Your task to perform on an android device: turn off sleep mode Image 0: 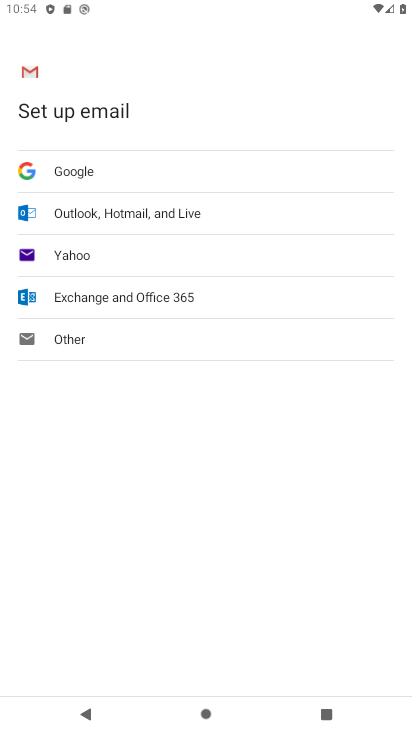
Step 0: press back button
Your task to perform on an android device: turn off sleep mode Image 1: 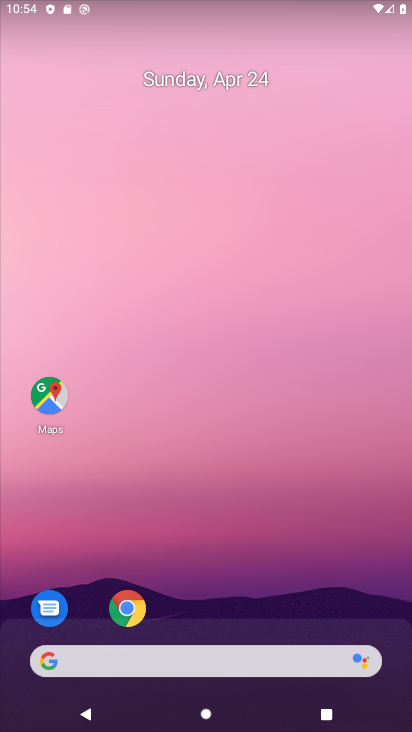
Step 1: drag from (246, 453) to (259, 84)
Your task to perform on an android device: turn off sleep mode Image 2: 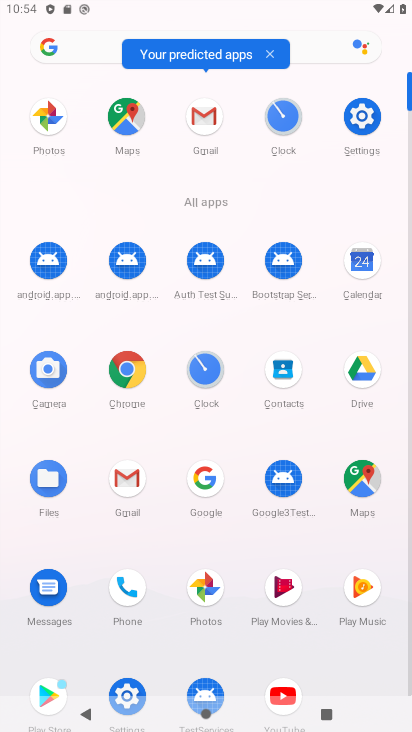
Step 2: click (362, 115)
Your task to perform on an android device: turn off sleep mode Image 3: 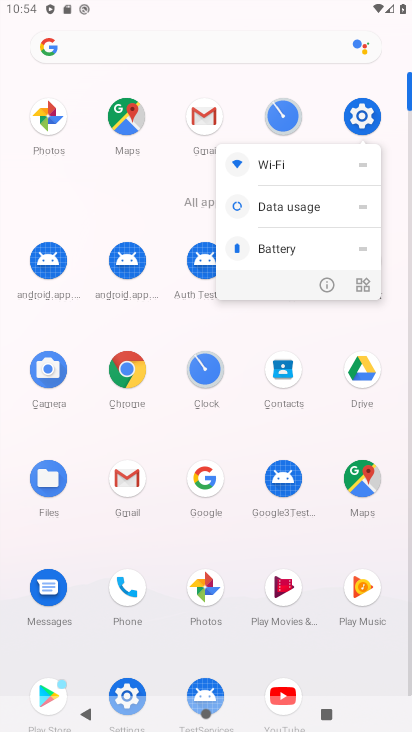
Step 3: click (366, 117)
Your task to perform on an android device: turn off sleep mode Image 4: 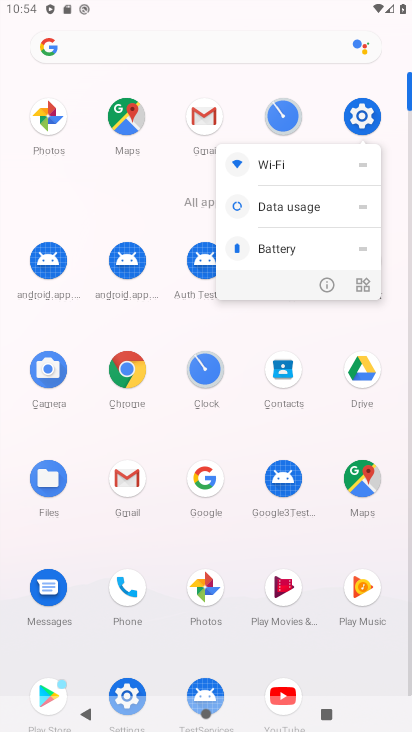
Step 4: click (365, 117)
Your task to perform on an android device: turn off sleep mode Image 5: 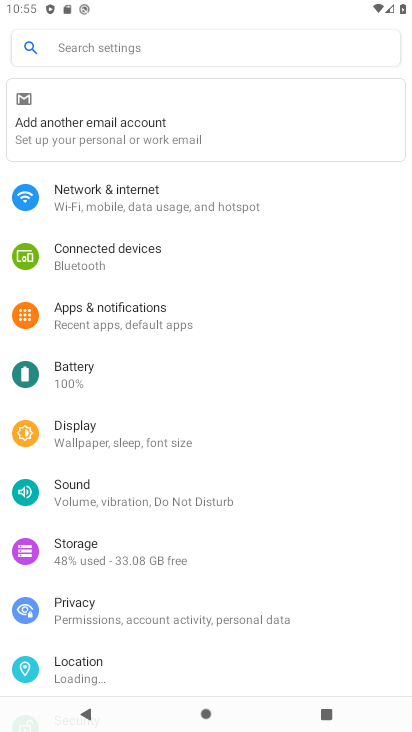
Step 5: click (102, 51)
Your task to perform on an android device: turn off sleep mode Image 6: 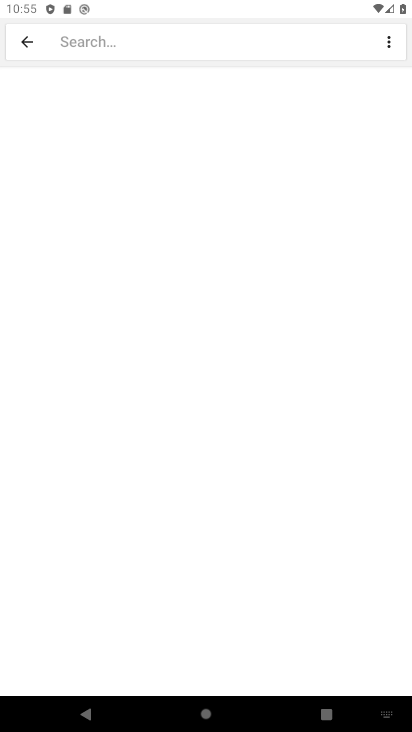
Step 6: type "sleep mode"
Your task to perform on an android device: turn off sleep mode Image 7: 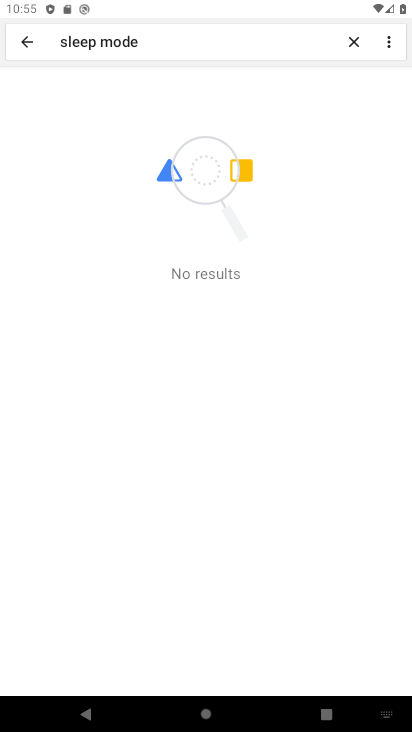
Step 7: task complete